Your task to perform on an android device: Open Chrome and go to settings Image 0: 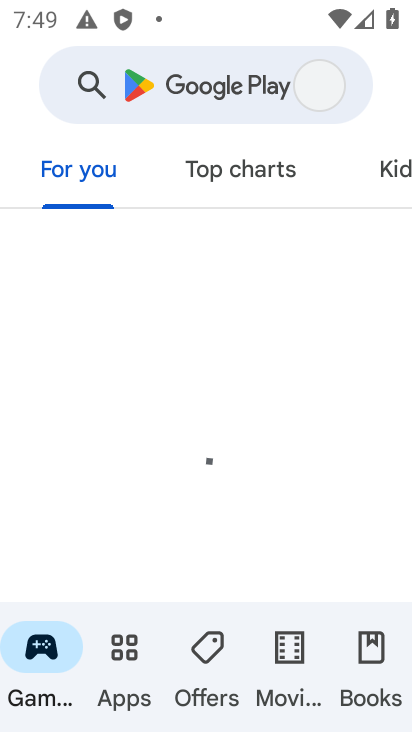
Step 0: press home button
Your task to perform on an android device: Open Chrome and go to settings Image 1: 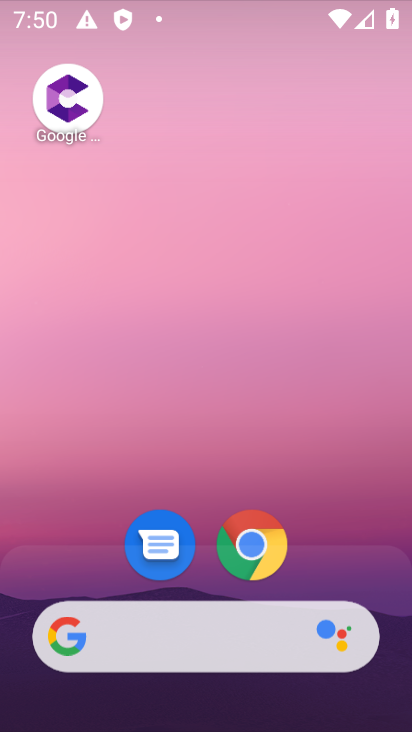
Step 1: click (249, 538)
Your task to perform on an android device: Open Chrome and go to settings Image 2: 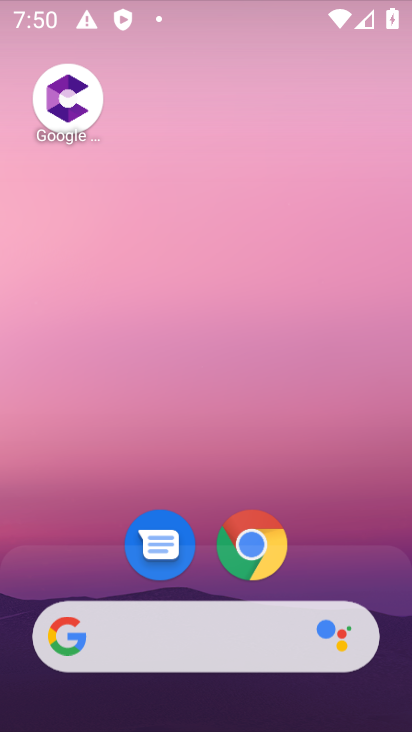
Step 2: click (249, 514)
Your task to perform on an android device: Open Chrome and go to settings Image 3: 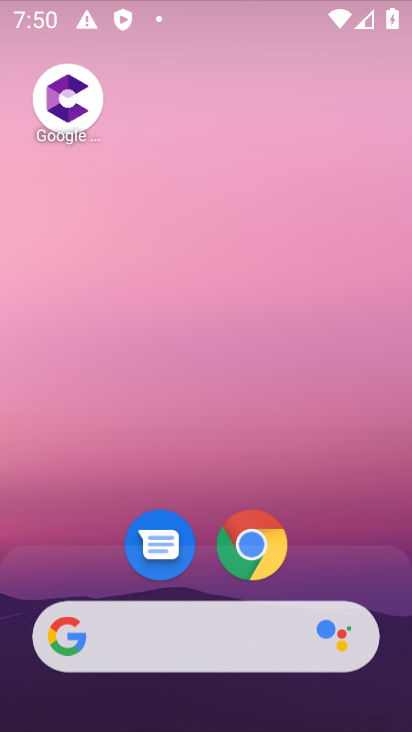
Step 3: drag from (99, 473) to (243, 118)
Your task to perform on an android device: Open Chrome and go to settings Image 4: 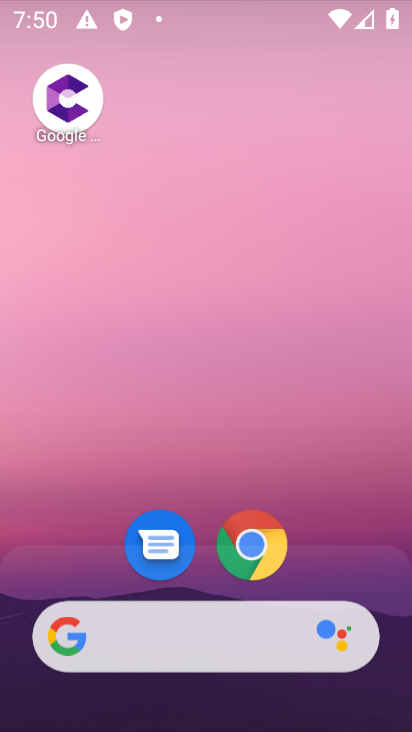
Step 4: drag from (29, 726) to (238, 63)
Your task to perform on an android device: Open Chrome and go to settings Image 5: 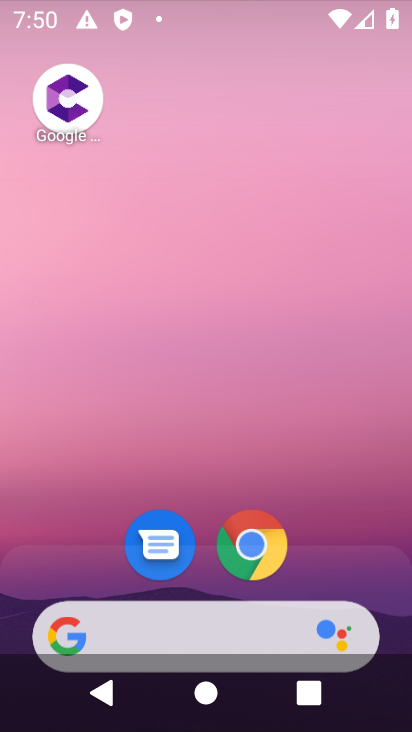
Step 5: drag from (32, 520) to (275, 114)
Your task to perform on an android device: Open Chrome and go to settings Image 6: 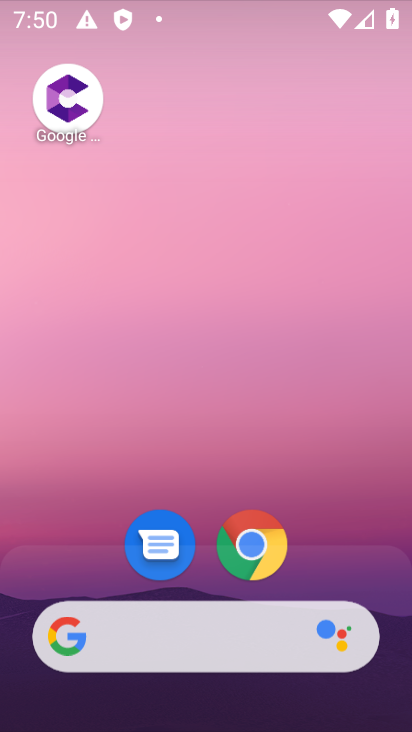
Step 6: drag from (30, 561) to (260, 25)
Your task to perform on an android device: Open Chrome and go to settings Image 7: 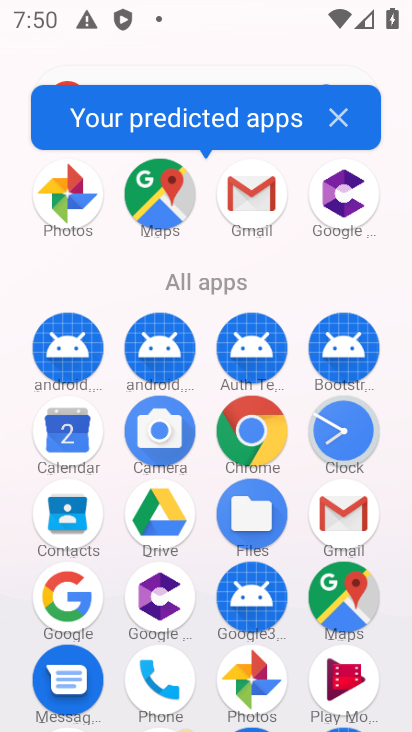
Step 7: click (244, 431)
Your task to perform on an android device: Open Chrome and go to settings Image 8: 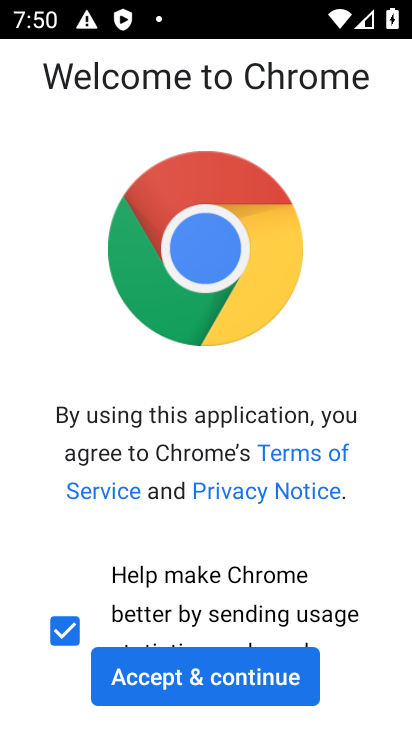
Step 8: click (227, 671)
Your task to perform on an android device: Open Chrome and go to settings Image 9: 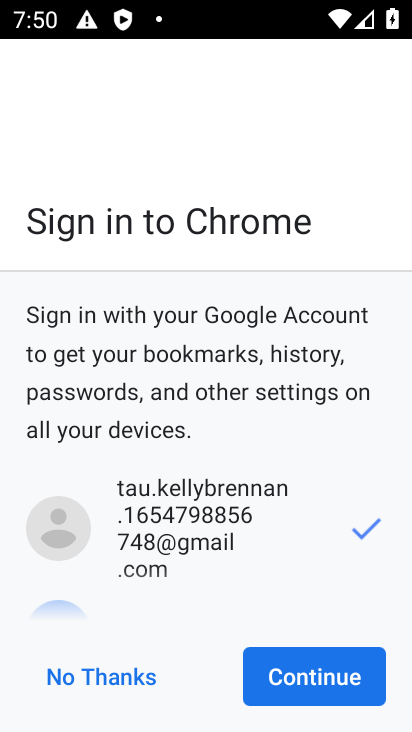
Step 9: click (68, 671)
Your task to perform on an android device: Open Chrome and go to settings Image 10: 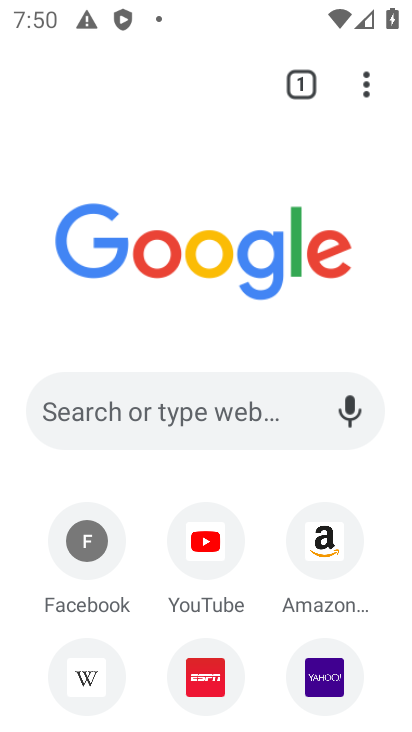
Step 10: click (369, 90)
Your task to perform on an android device: Open Chrome and go to settings Image 11: 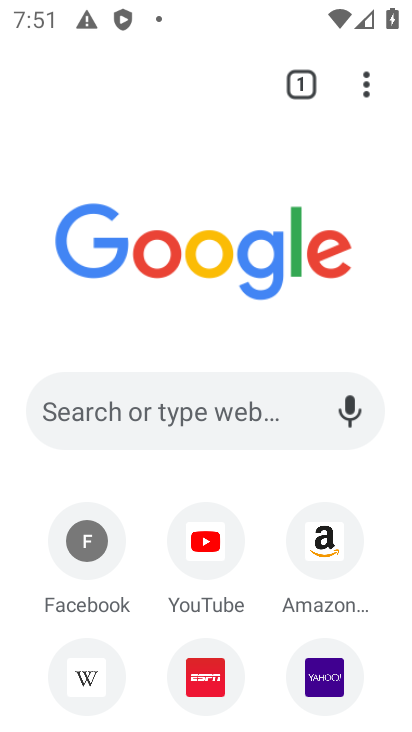
Step 11: click (364, 80)
Your task to perform on an android device: Open Chrome and go to settings Image 12: 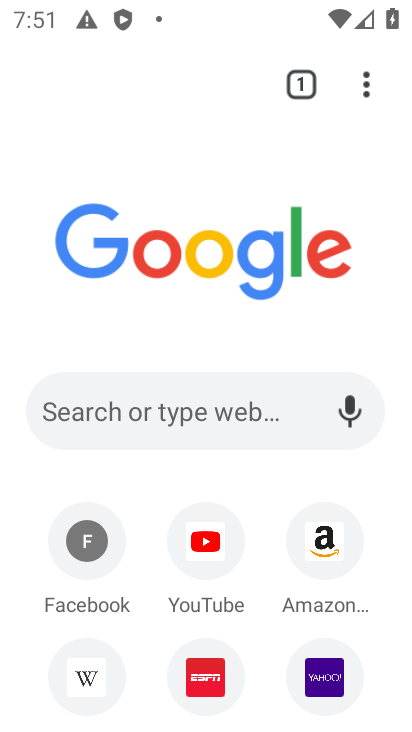
Step 12: click (362, 85)
Your task to perform on an android device: Open Chrome and go to settings Image 13: 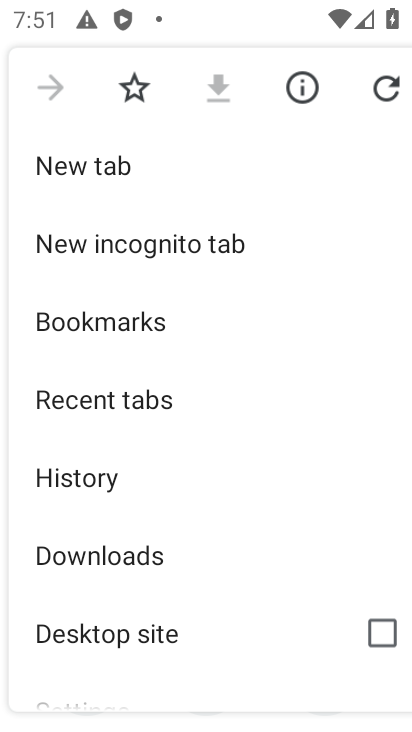
Step 13: drag from (51, 624) to (230, 115)
Your task to perform on an android device: Open Chrome and go to settings Image 14: 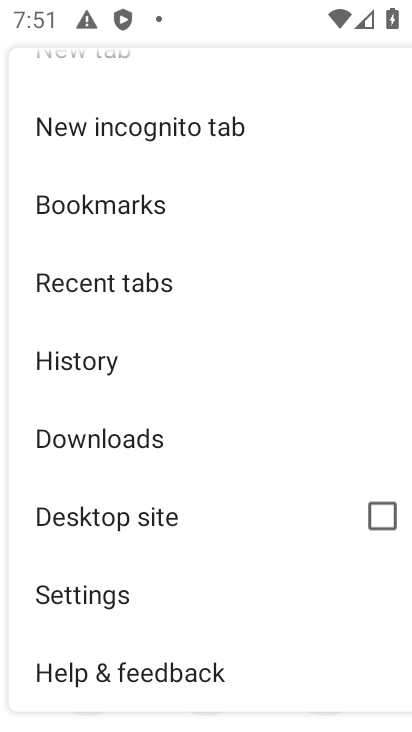
Step 14: click (118, 585)
Your task to perform on an android device: Open Chrome and go to settings Image 15: 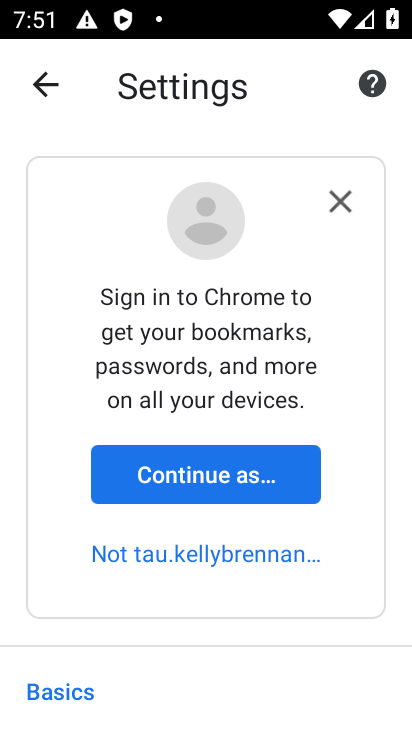
Step 15: click (328, 213)
Your task to perform on an android device: Open Chrome and go to settings Image 16: 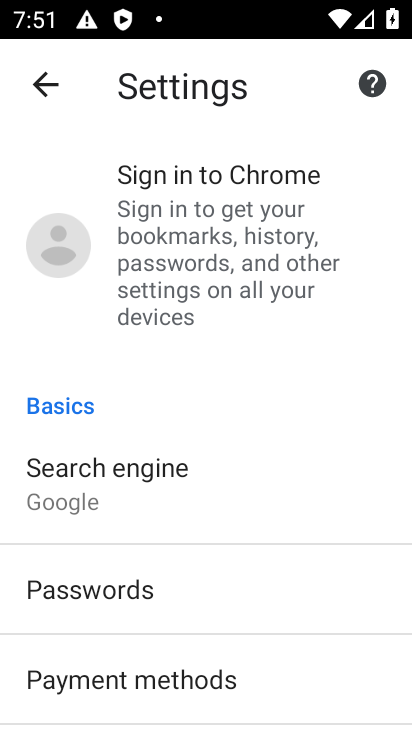
Step 16: task complete